Your task to perform on an android device: change your default location settings in chrome Image 0: 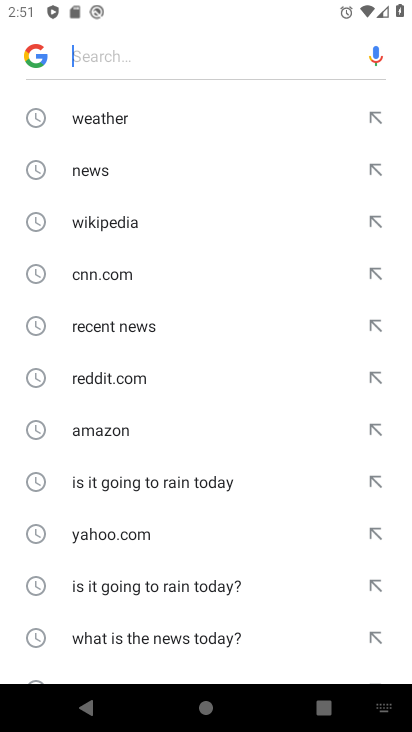
Step 0: press back button
Your task to perform on an android device: change your default location settings in chrome Image 1: 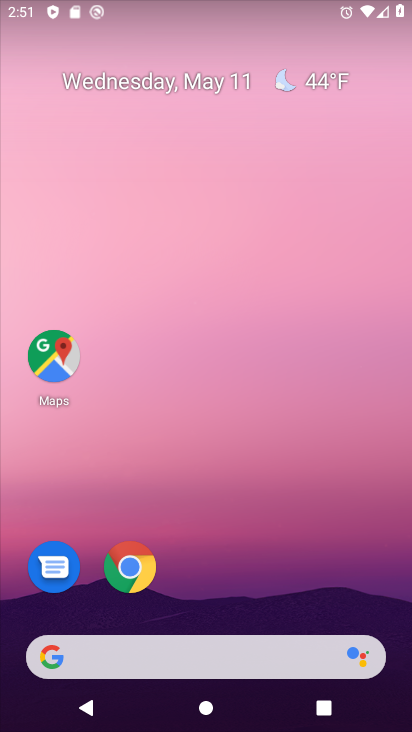
Step 1: drag from (191, 588) to (193, 40)
Your task to perform on an android device: change your default location settings in chrome Image 2: 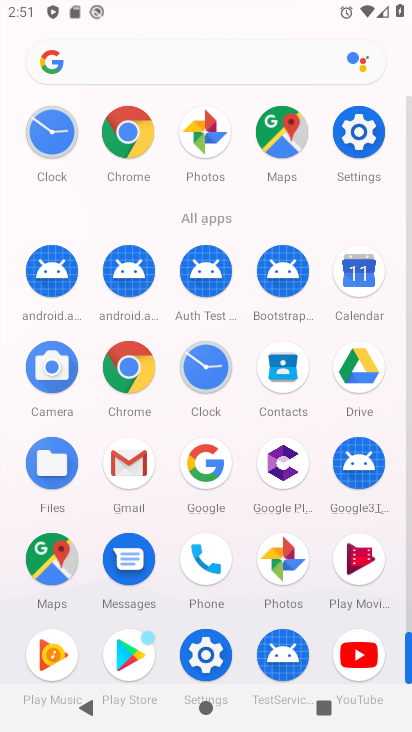
Step 2: click (120, 130)
Your task to perform on an android device: change your default location settings in chrome Image 3: 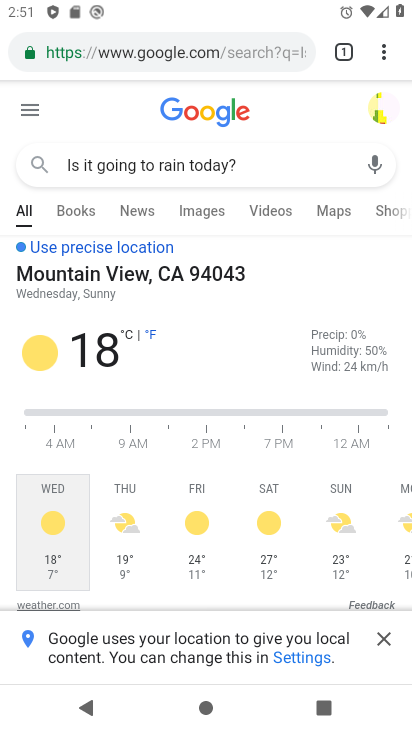
Step 3: drag from (377, 50) to (192, 598)
Your task to perform on an android device: change your default location settings in chrome Image 4: 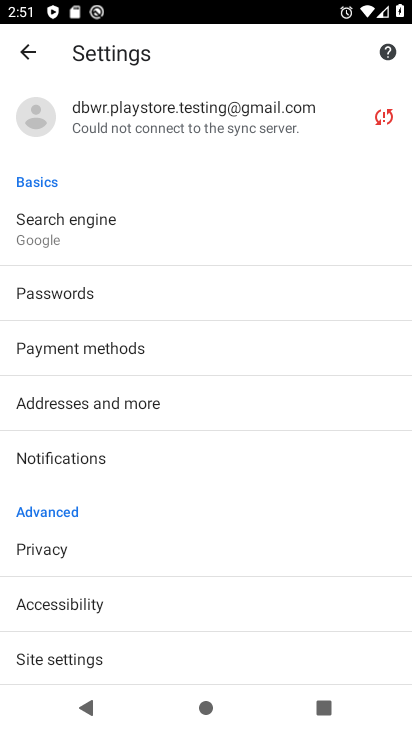
Step 4: drag from (217, 471) to (197, 243)
Your task to perform on an android device: change your default location settings in chrome Image 5: 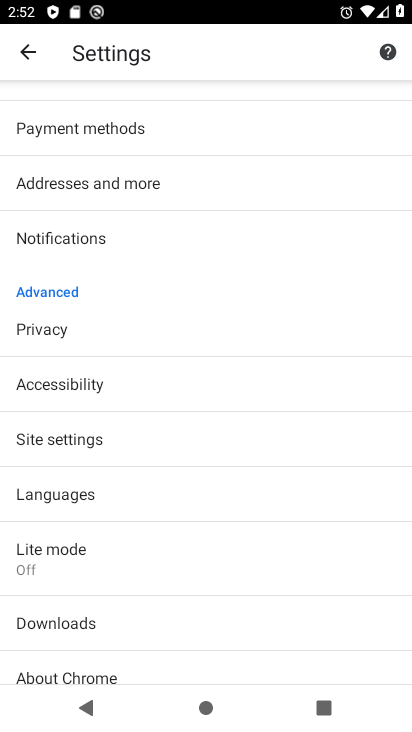
Step 5: click (87, 439)
Your task to perform on an android device: change your default location settings in chrome Image 6: 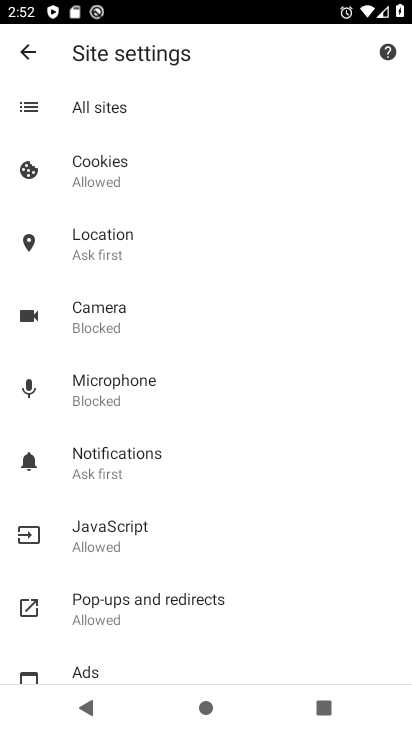
Step 6: click (141, 239)
Your task to perform on an android device: change your default location settings in chrome Image 7: 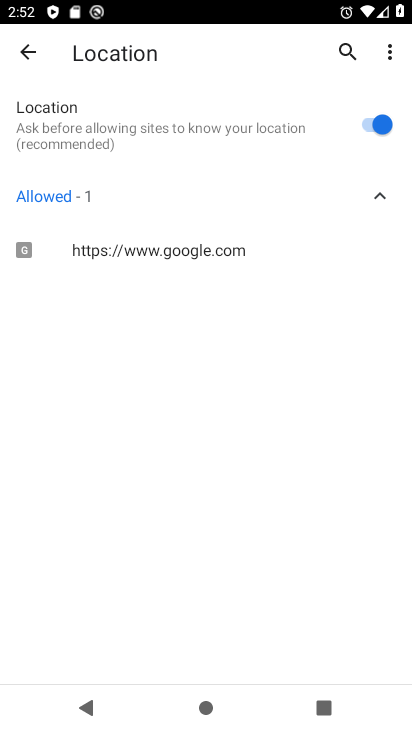
Step 7: click (367, 117)
Your task to perform on an android device: change your default location settings in chrome Image 8: 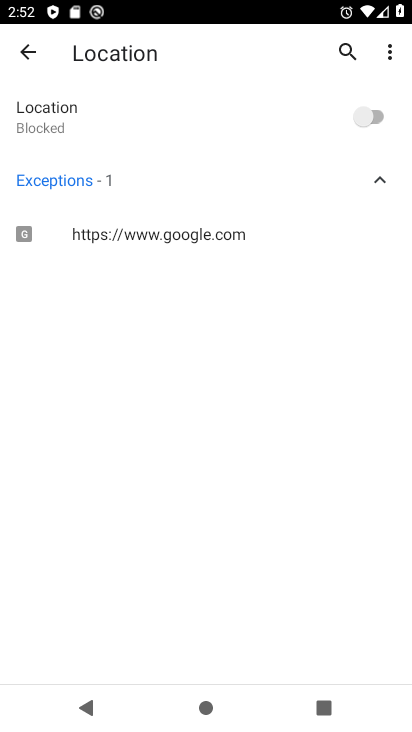
Step 8: task complete